Your task to perform on an android device: Open wifi settings Image 0: 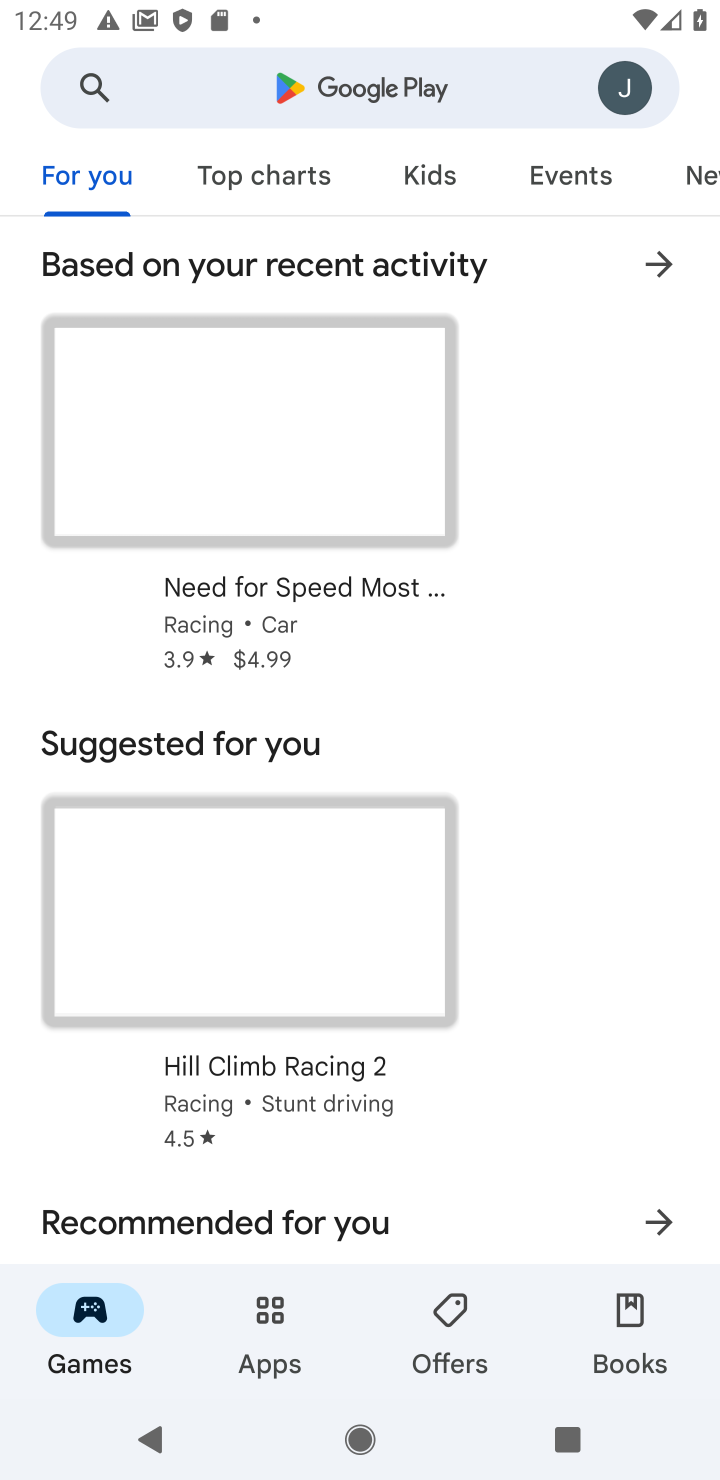
Step 0: press home button
Your task to perform on an android device: Open wifi settings Image 1: 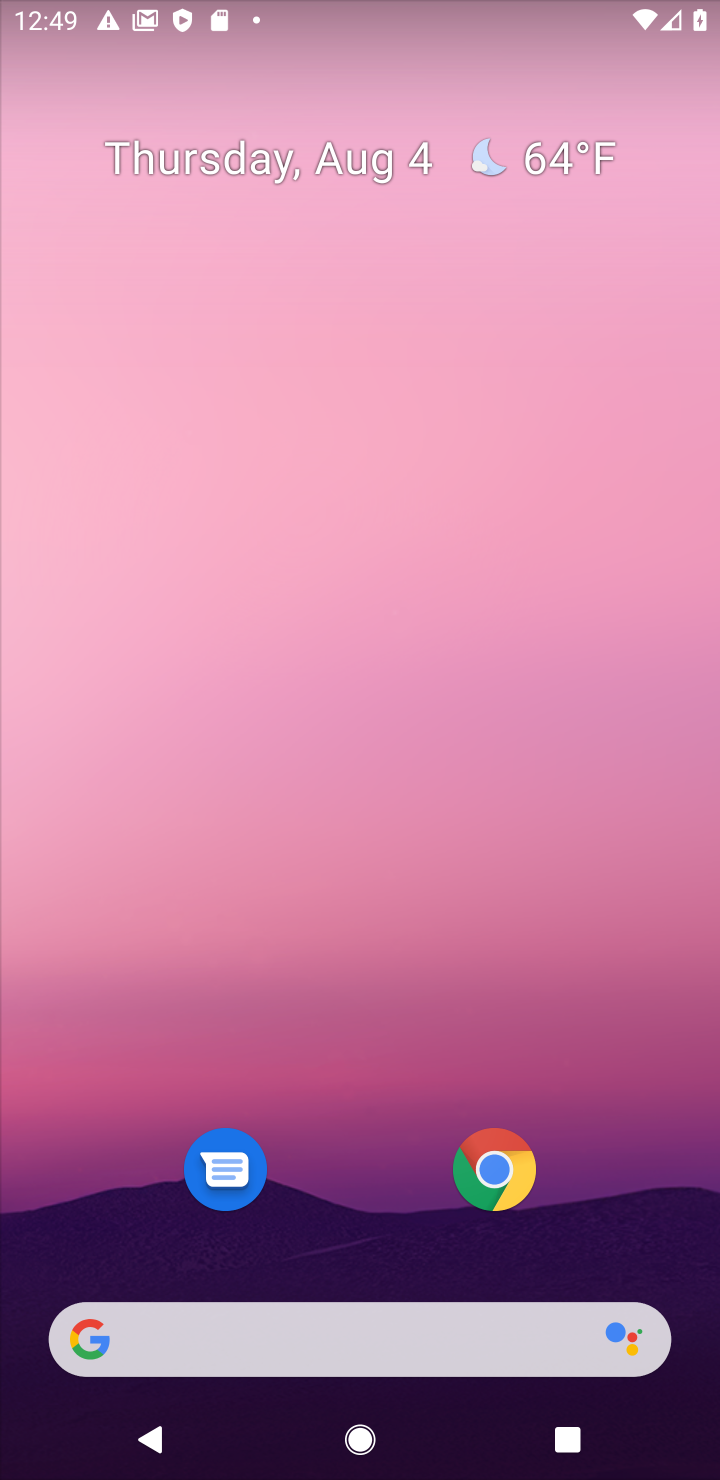
Step 1: drag from (352, 1243) to (500, 242)
Your task to perform on an android device: Open wifi settings Image 2: 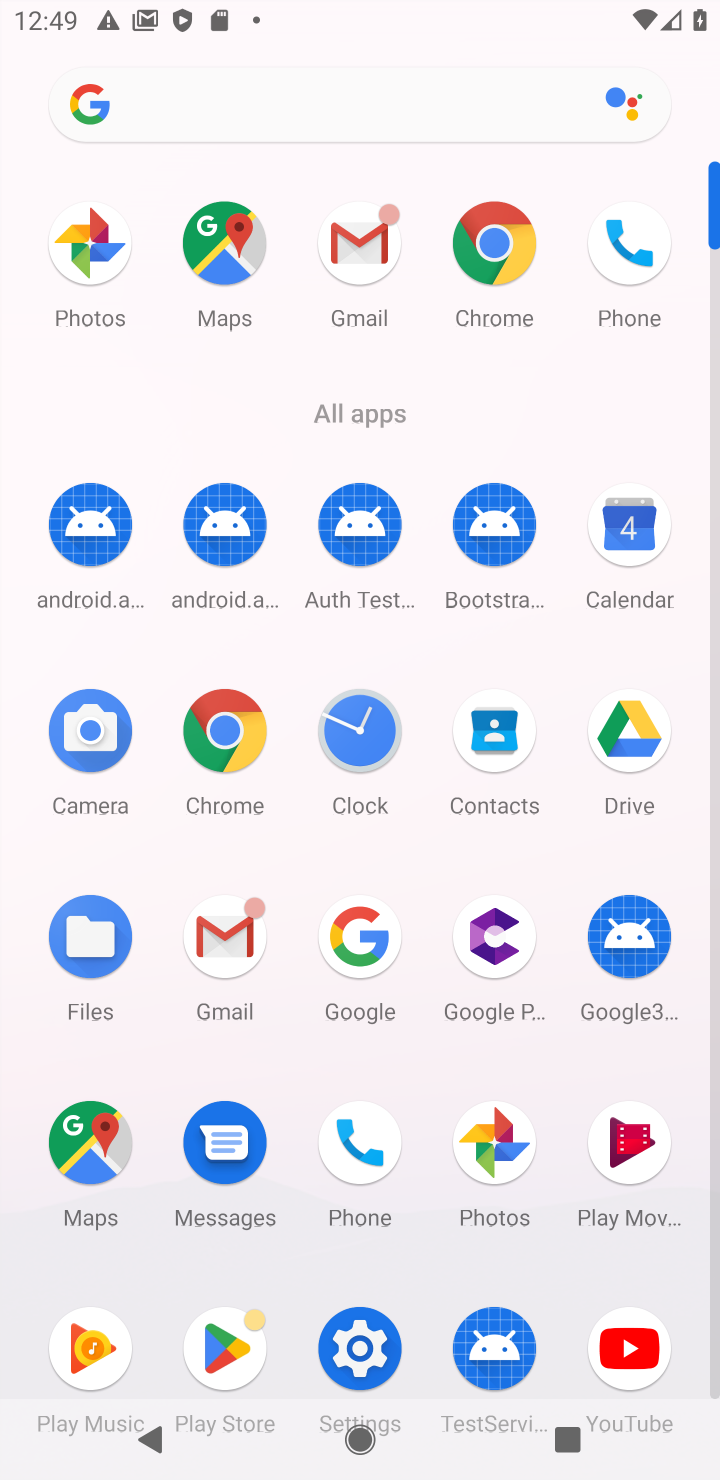
Step 2: click (361, 1341)
Your task to perform on an android device: Open wifi settings Image 3: 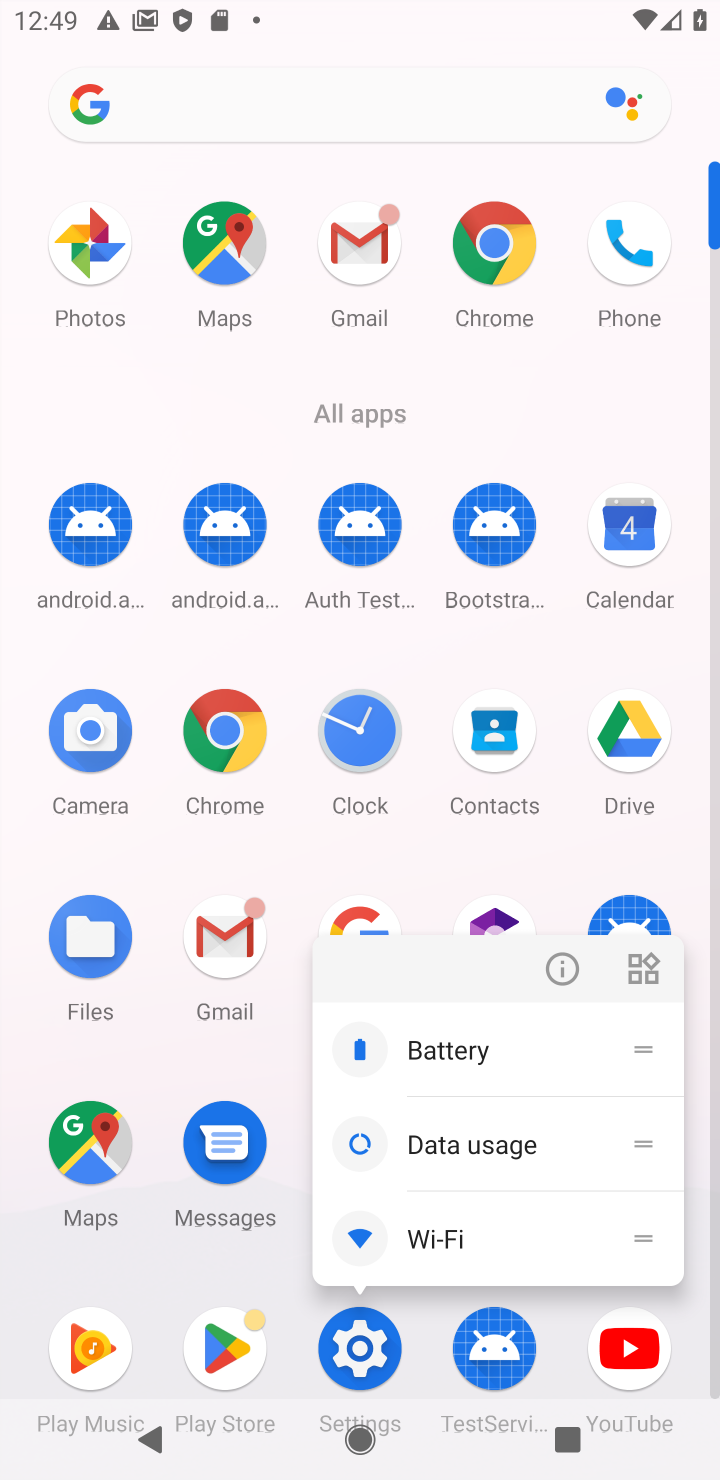
Step 3: click (347, 1315)
Your task to perform on an android device: Open wifi settings Image 4: 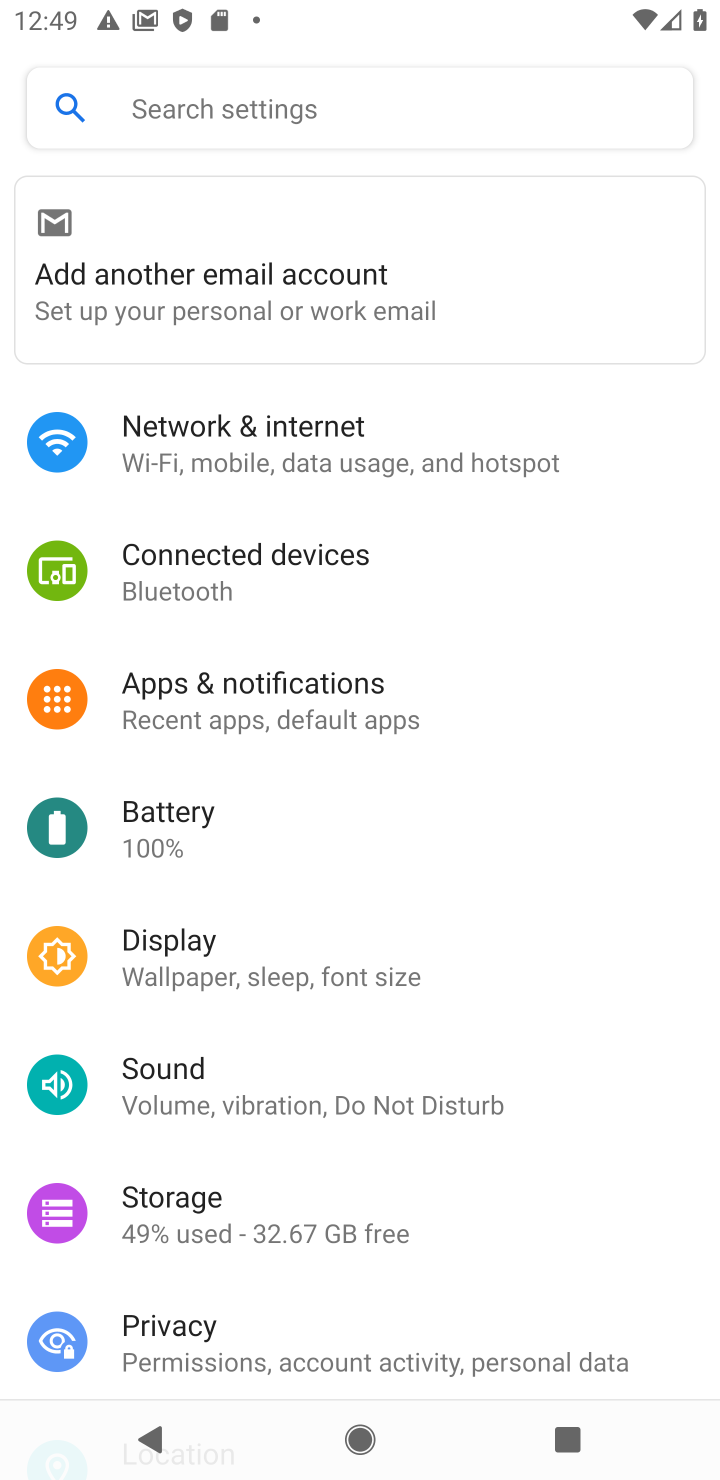
Step 4: click (271, 242)
Your task to perform on an android device: Open wifi settings Image 5: 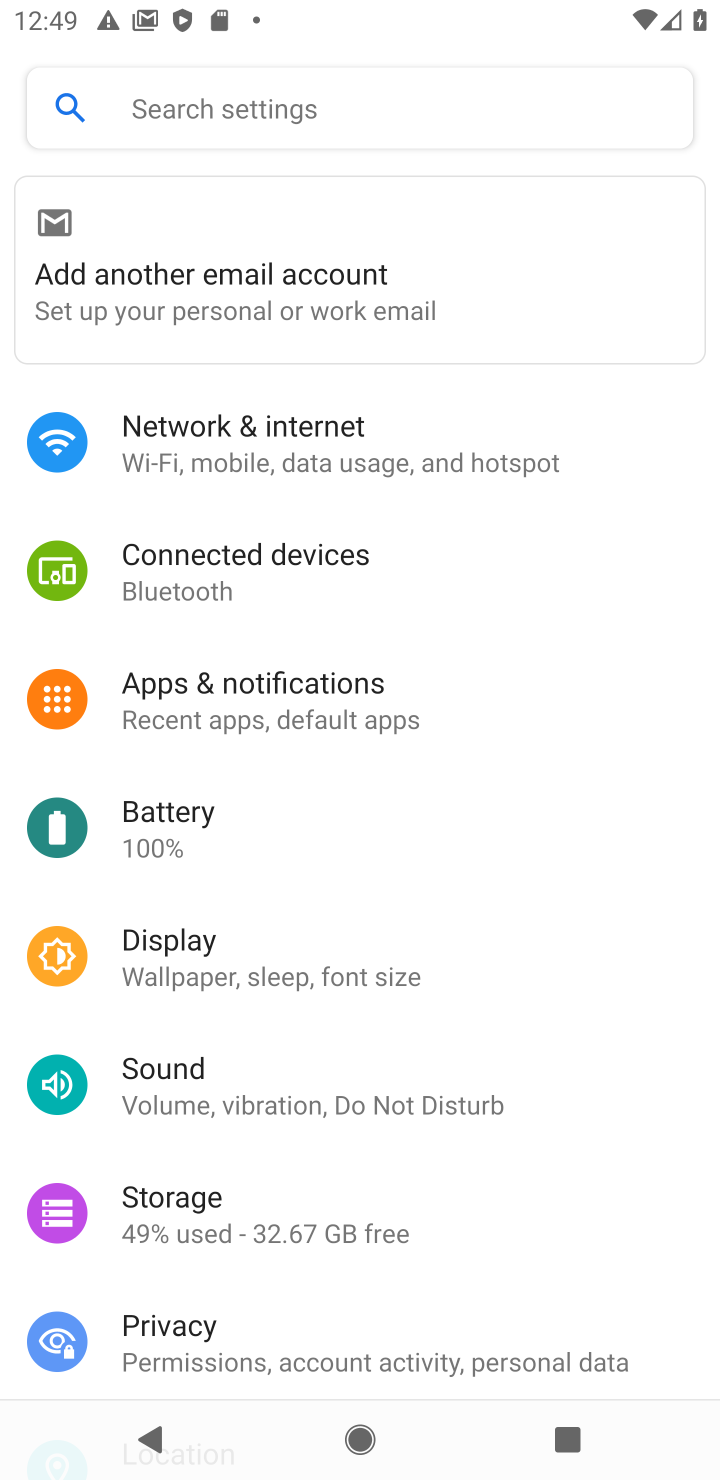
Step 5: press back button
Your task to perform on an android device: Open wifi settings Image 6: 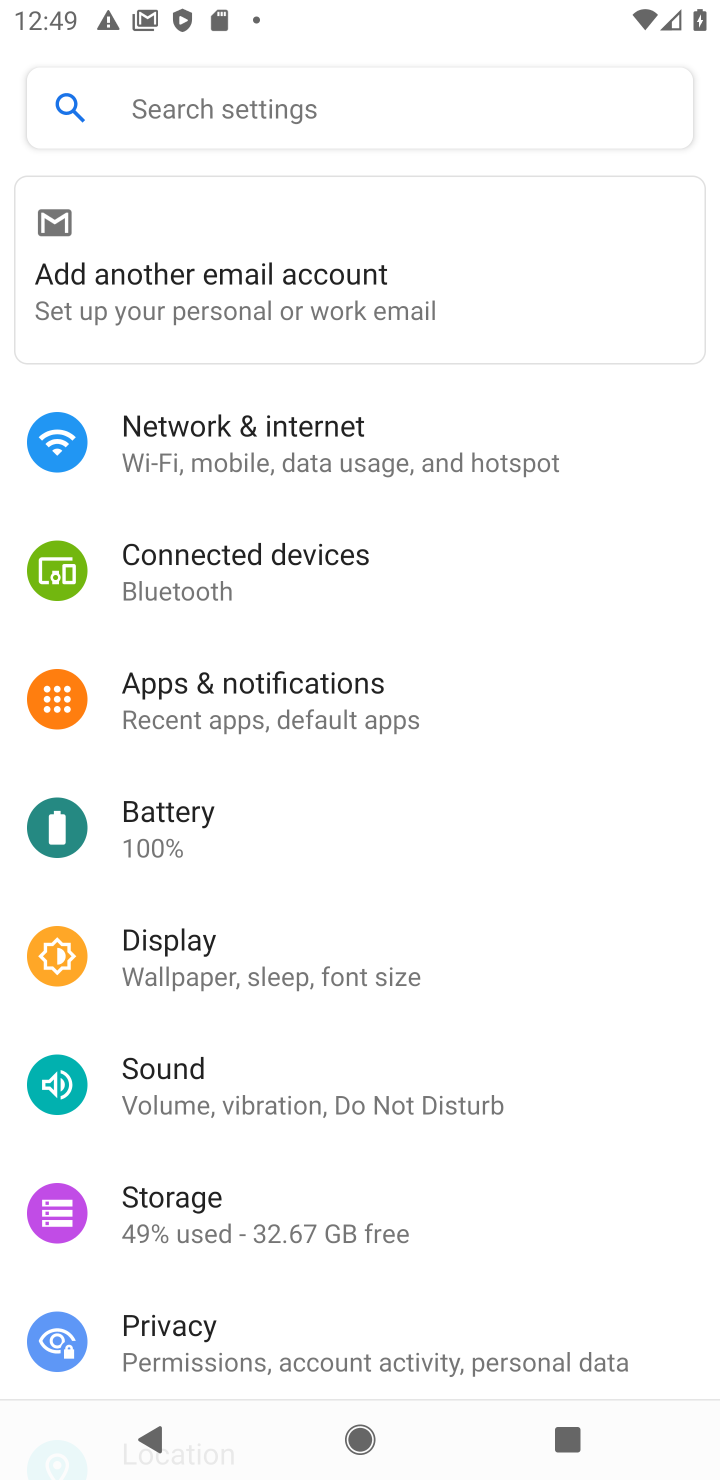
Step 6: click (270, 255)
Your task to perform on an android device: Open wifi settings Image 7: 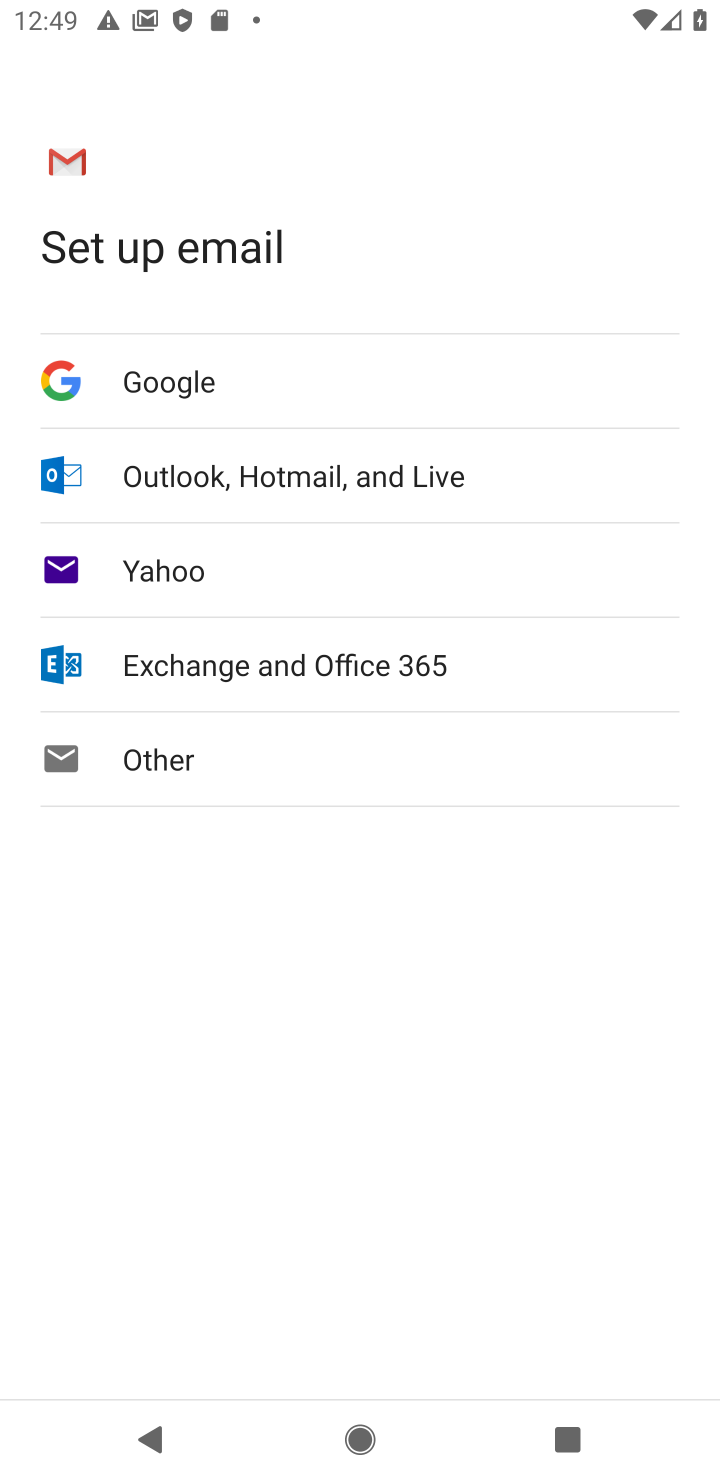
Step 7: press back button
Your task to perform on an android device: Open wifi settings Image 8: 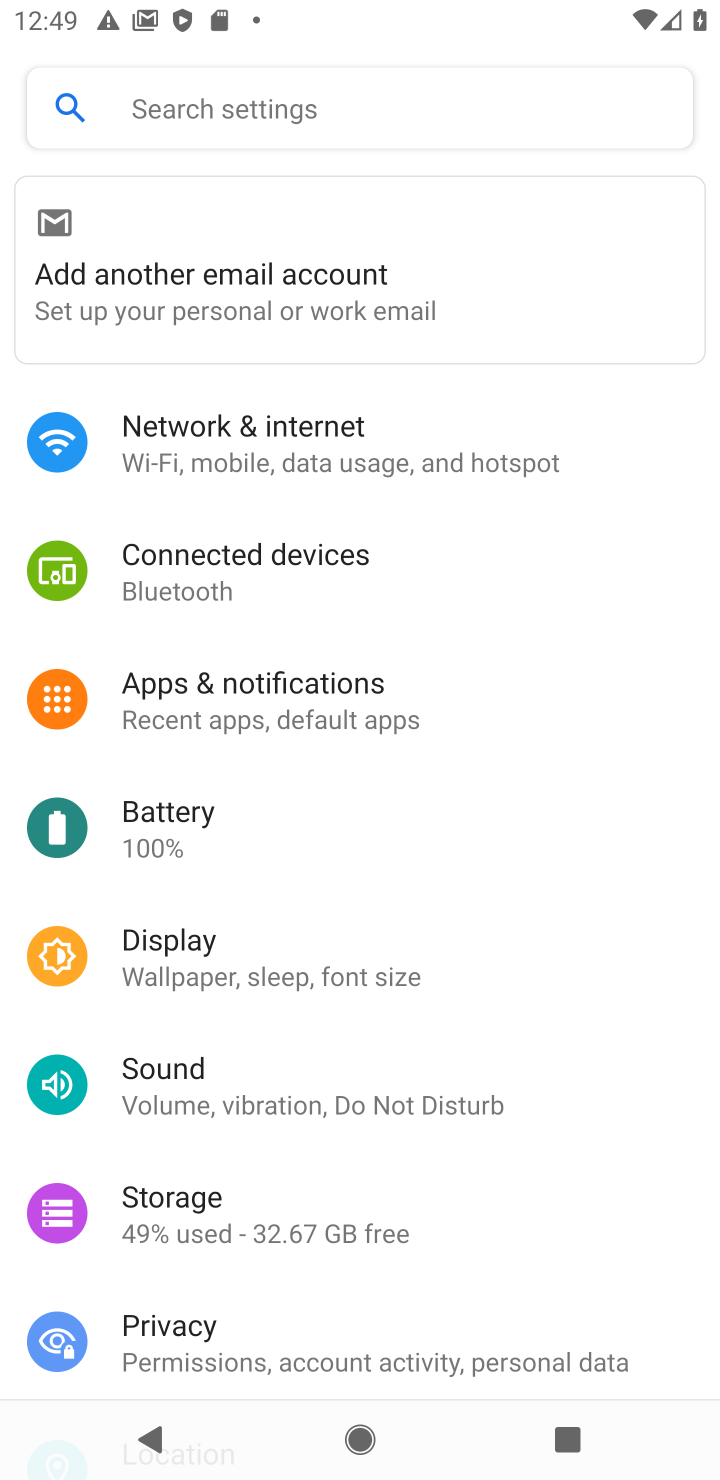
Step 8: click (418, 453)
Your task to perform on an android device: Open wifi settings Image 9: 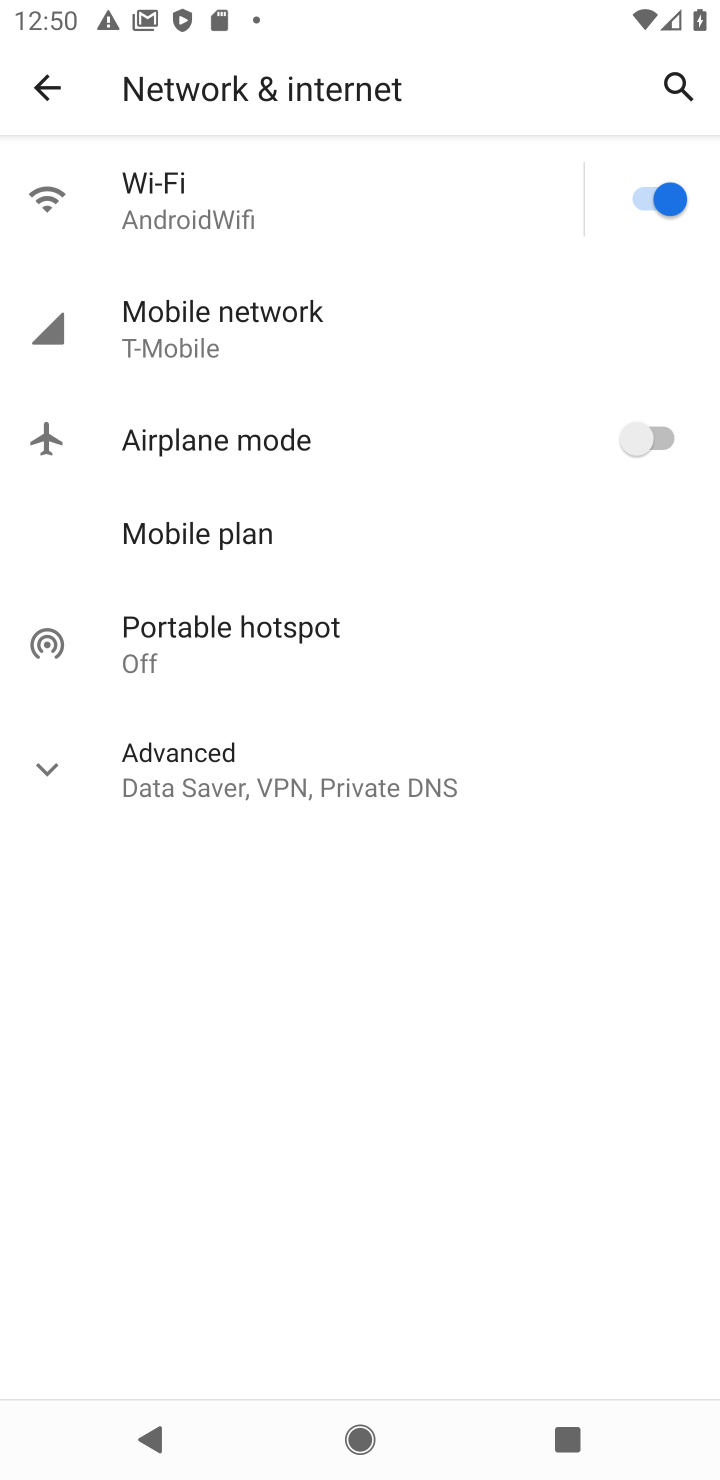
Step 9: click (183, 199)
Your task to perform on an android device: Open wifi settings Image 10: 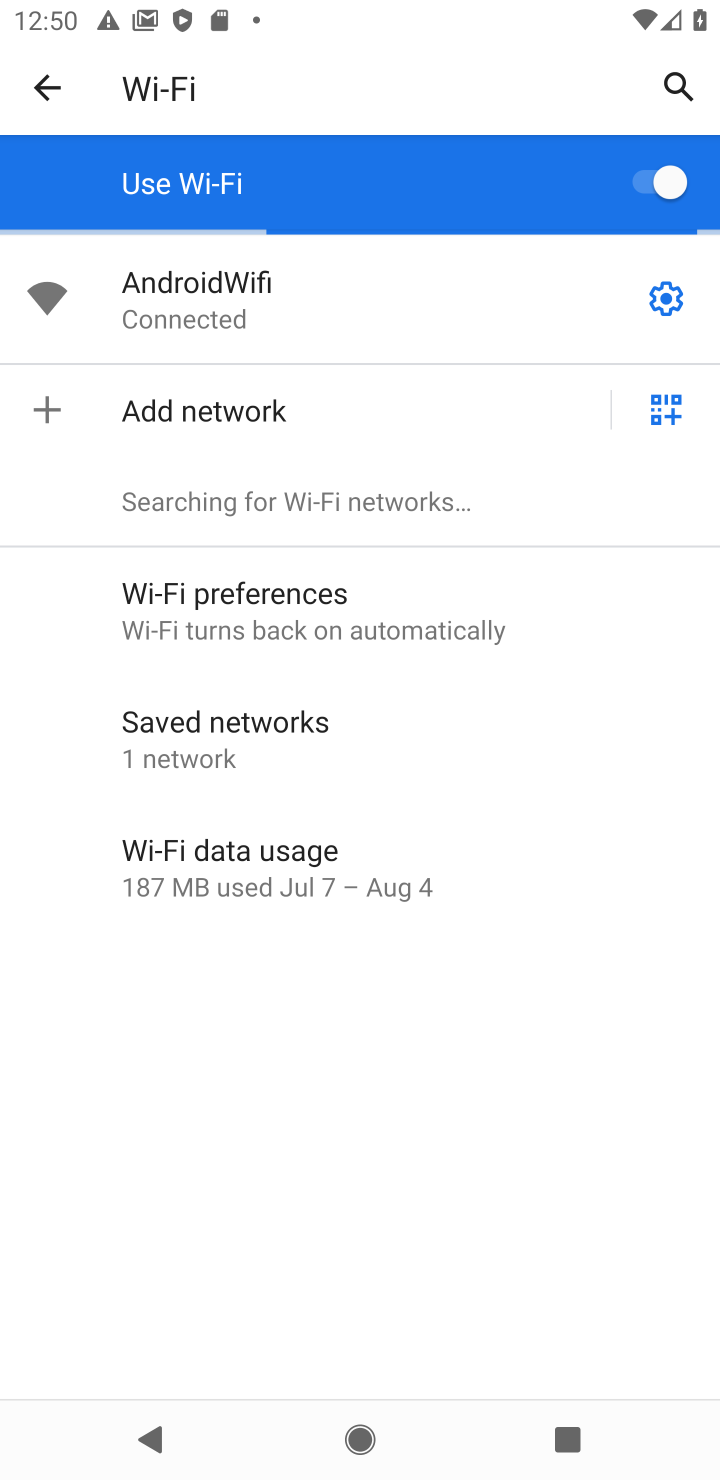
Step 10: task complete